Your task to perform on an android device: Search for seafood restaurants on Google Maps Image 0: 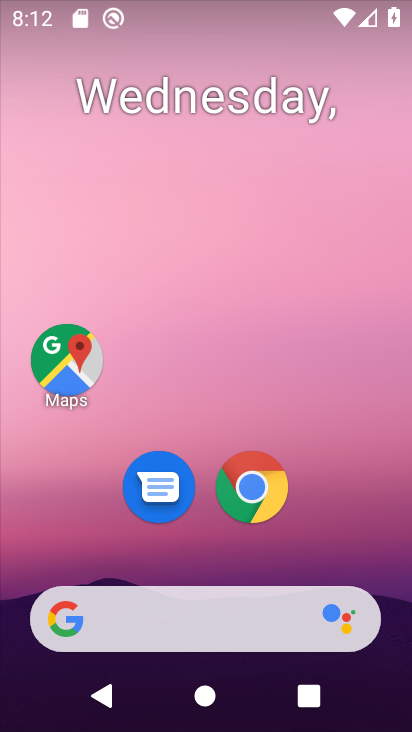
Step 0: click (66, 363)
Your task to perform on an android device: Search for seafood restaurants on Google Maps Image 1: 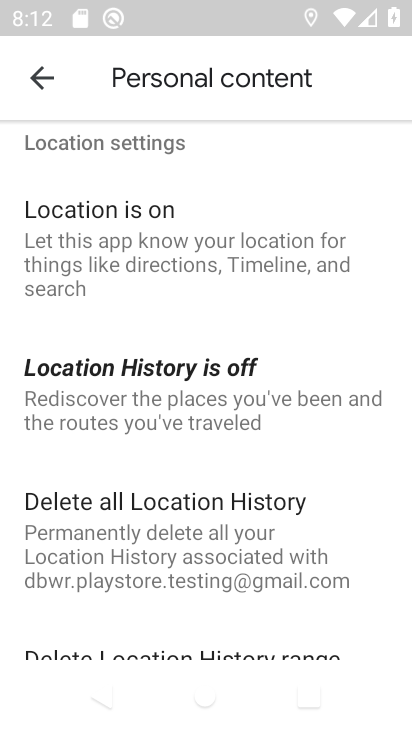
Step 1: click (41, 86)
Your task to perform on an android device: Search for seafood restaurants on Google Maps Image 2: 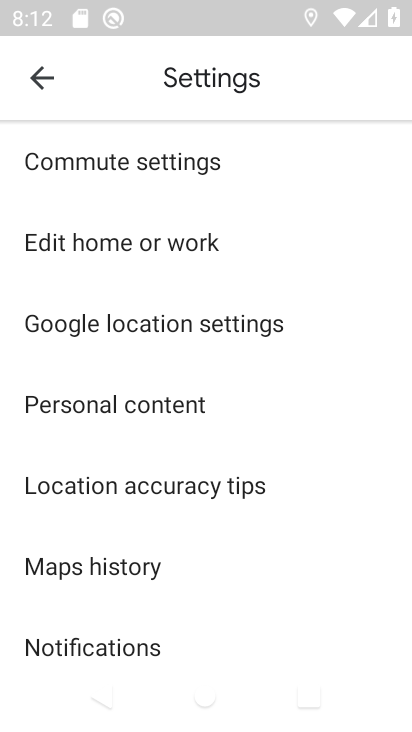
Step 2: click (41, 86)
Your task to perform on an android device: Search for seafood restaurants on Google Maps Image 3: 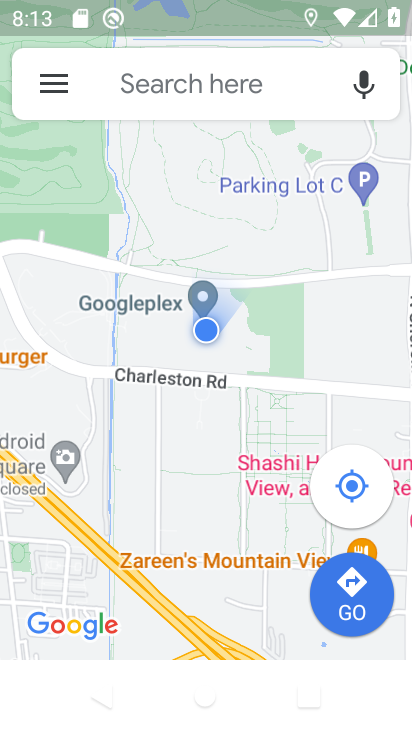
Step 3: click (185, 90)
Your task to perform on an android device: Search for seafood restaurants on Google Maps Image 4: 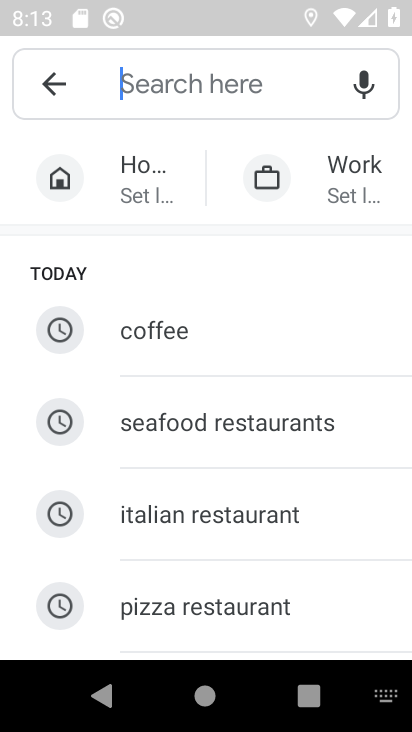
Step 4: type "seafood restaurants"
Your task to perform on an android device: Search for seafood restaurants on Google Maps Image 5: 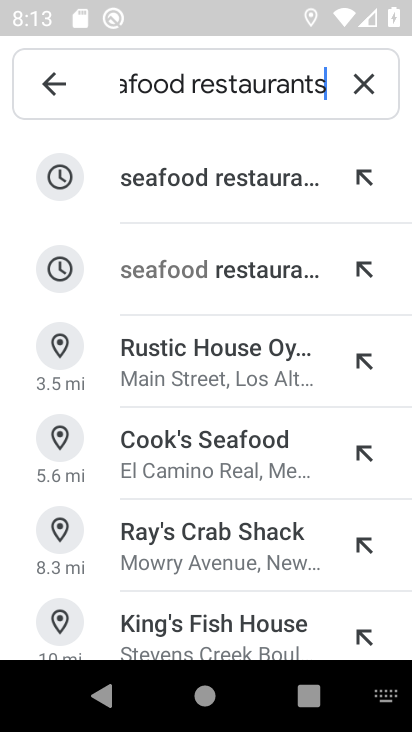
Step 5: click (195, 175)
Your task to perform on an android device: Search for seafood restaurants on Google Maps Image 6: 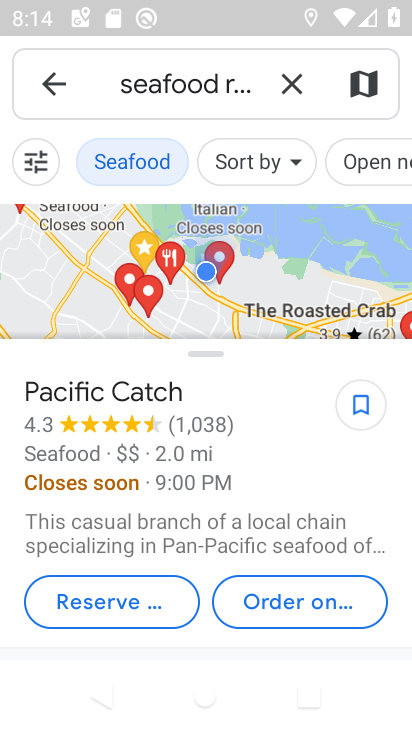
Step 6: task complete